Your task to perform on an android device: Play the last video I watched on Youtube Image 0: 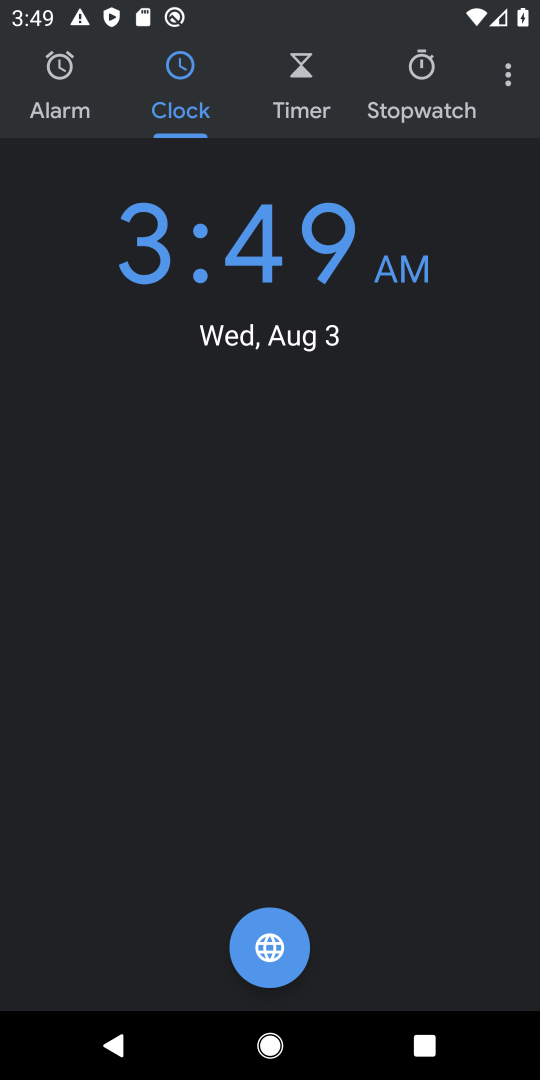
Step 0: press home button
Your task to perform on an android device: Play the last video I watched on Youtube Image 1: 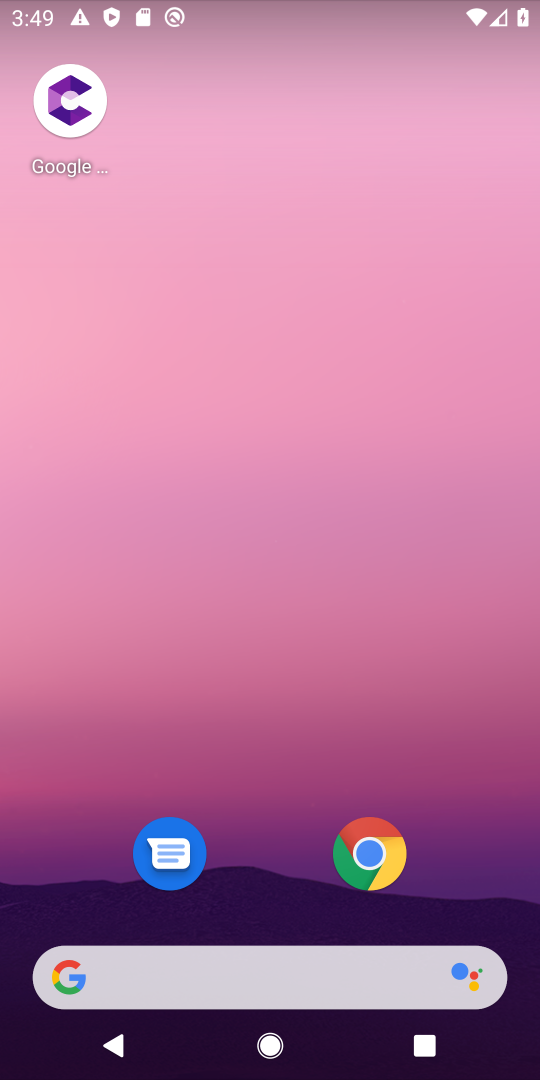
Step 1: drag from (256, 925) to (255, 106)
Your task to perform on an android device: Play the last video I watched on Youtube Image 2: 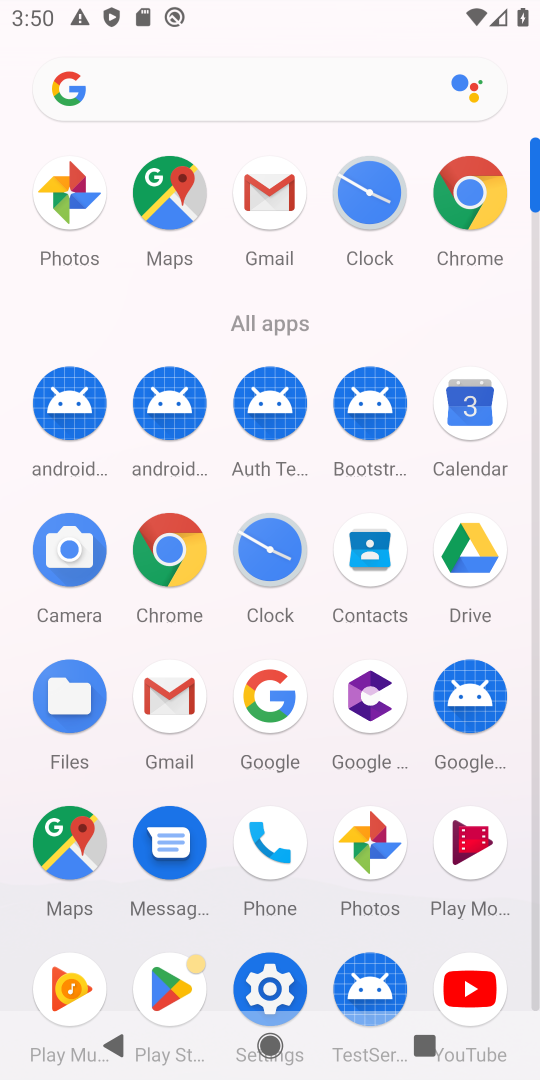
Step 2: click (485, 982)
Your task to perform on an android device: Play the last video I watched on Youtube Image 3: 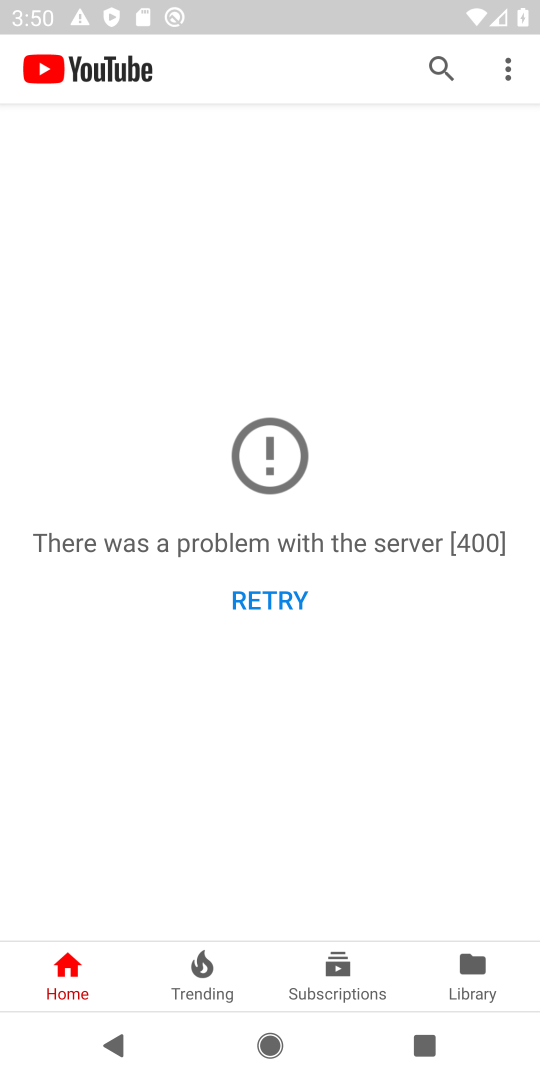
Step 3: click (469, 969)
Your task to perform on an android device: Play the last video I watched on Youtube Image 4: 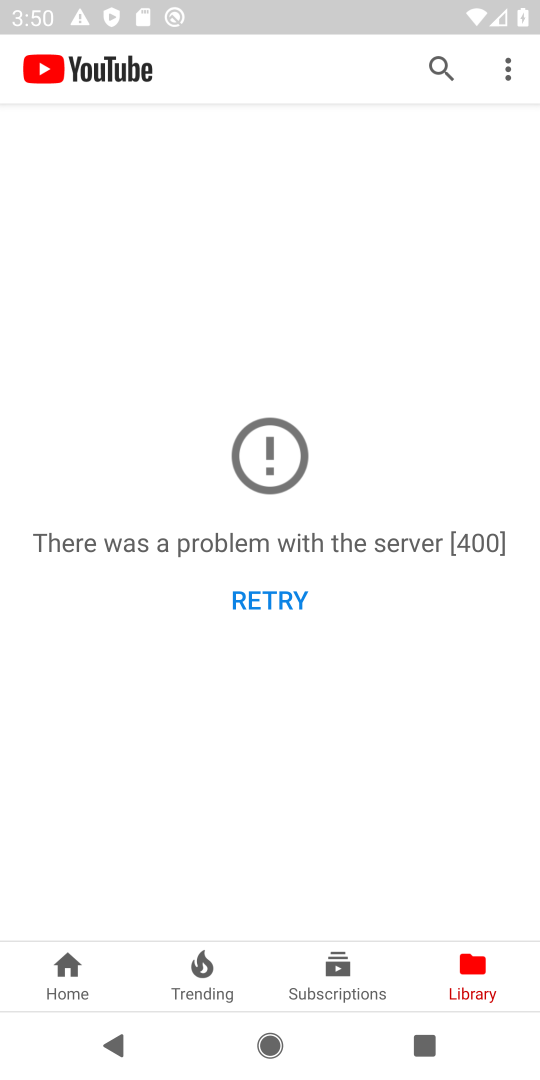
Step 4: task complete